Your task to perform on an android device: toggle show notifications on the lock screen Image 0: 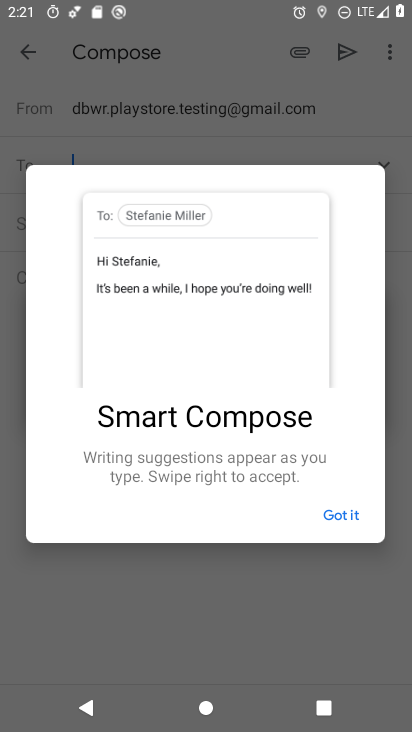
Step 0: drag from (330, 558) to (375, 147)
Your task to perform on an android device: toggle show notifications on the lock screen Image 1: 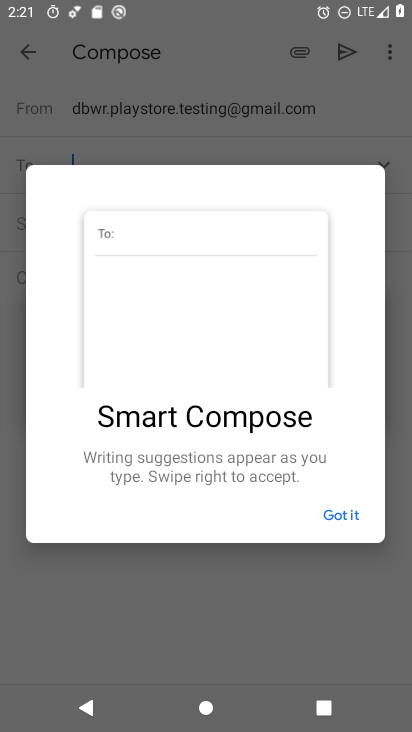
Step 1: press home button
Your task to perform on an android device: toggle show notifications on the lock screen Image 2: 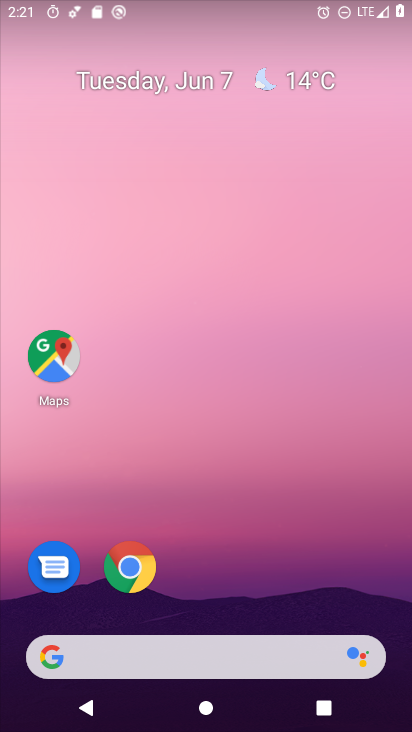
Step 2: drag from (281, 506) to (326, 99)
Your task to perform on an android device: toggle show notifications on the lock screen Image 3: 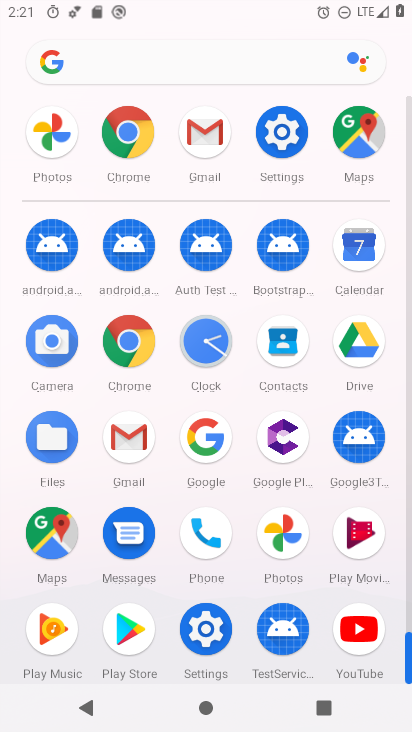
Step 3: click (295, 147)
Your task to perform on an android device: toggle show notifications on the lock screen Image 4: 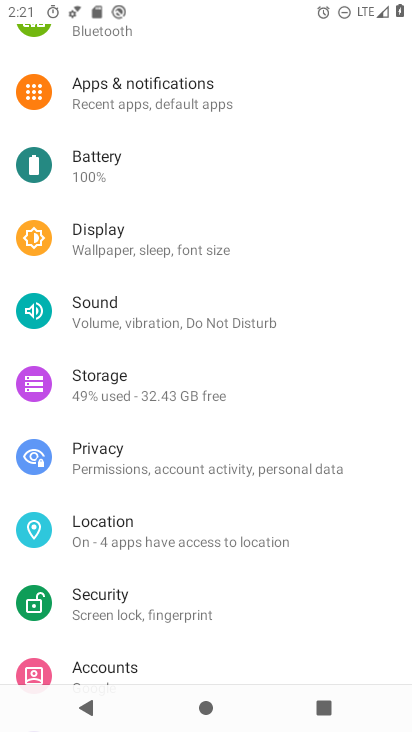
Step 4: click (198, 98)
Your task to perform on an android device: toggle show notifications on the lock screen Image 5: 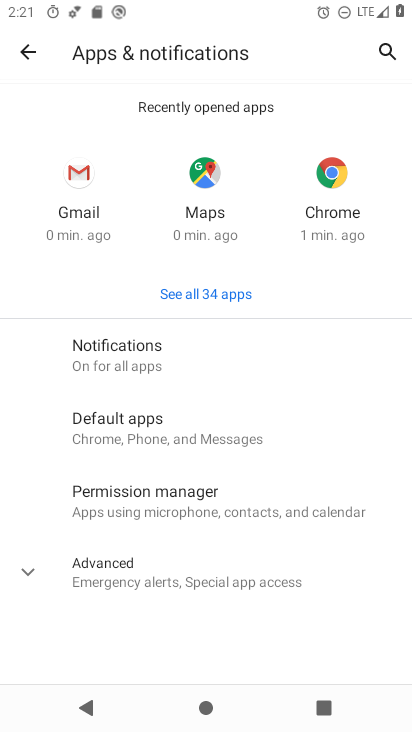
Step 5: click (79, 357)
Your task to perform on an android device: toggle show notifications on the lock screen Image 6: 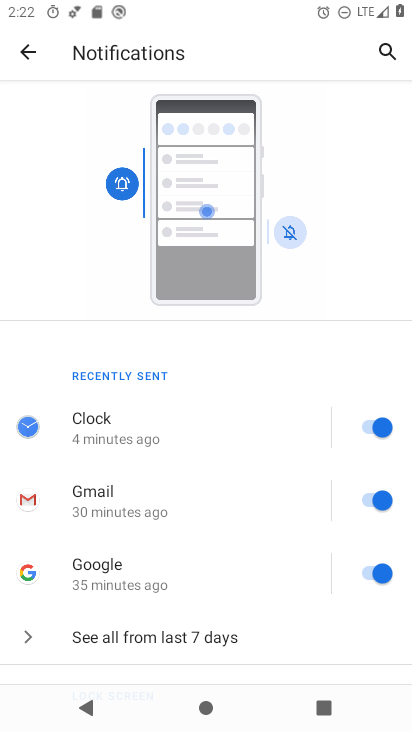
Step 6: drag from (126, 562) to (219, 162)
Your task to perform on an android device: toggle show notifications on the lock screen Image 7: 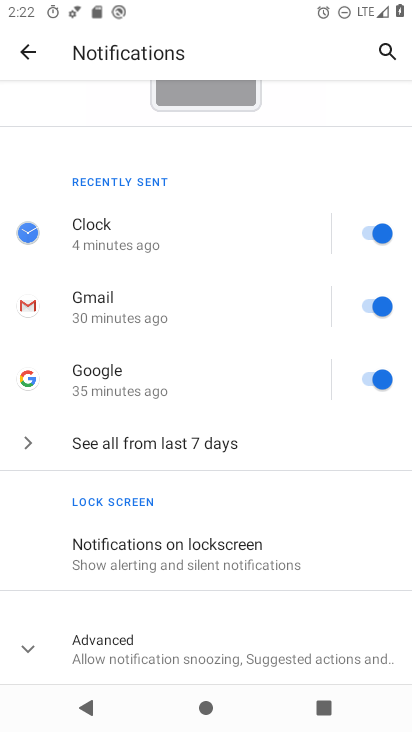
Step 7: click (188, 551)
Your task to perform on an android device: toggle show notifications on the lock screen Image 8: 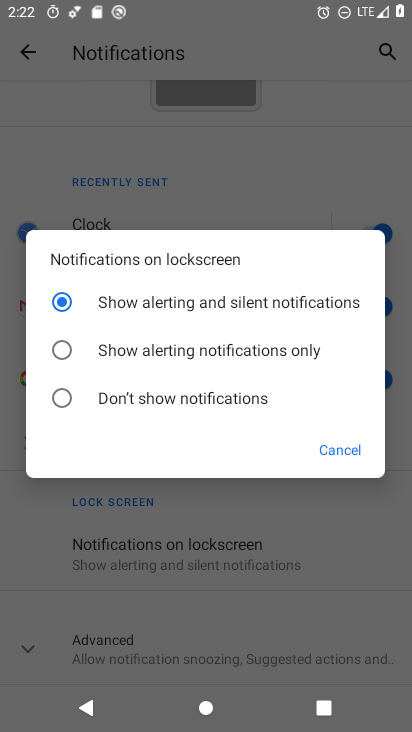
Step 8: click (180, 346)
Your task to perform on an android device: toggle show notifications on the lock screen Image 9: 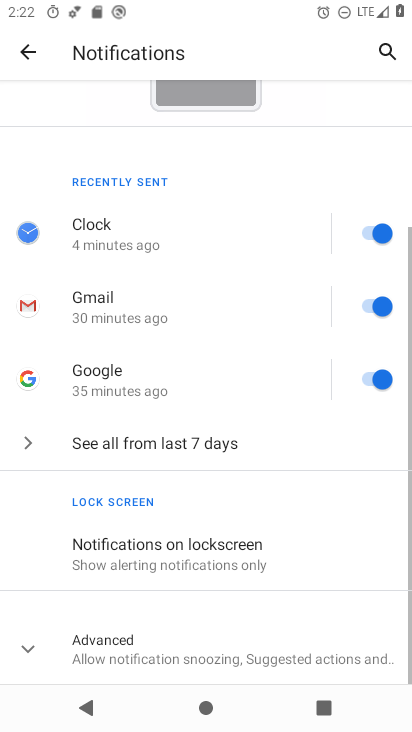
Step 9: task complete